Your task to perform on an android device: Open eBay Image 0: 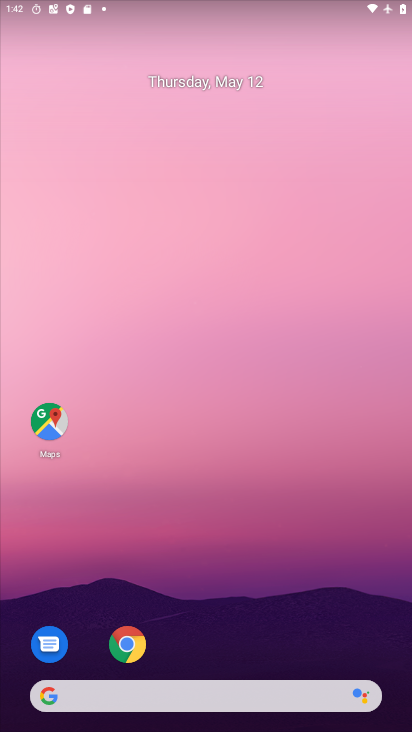
Step 0: click (134, 644)
Your task to perform on an android device: Open eBay Image 1: 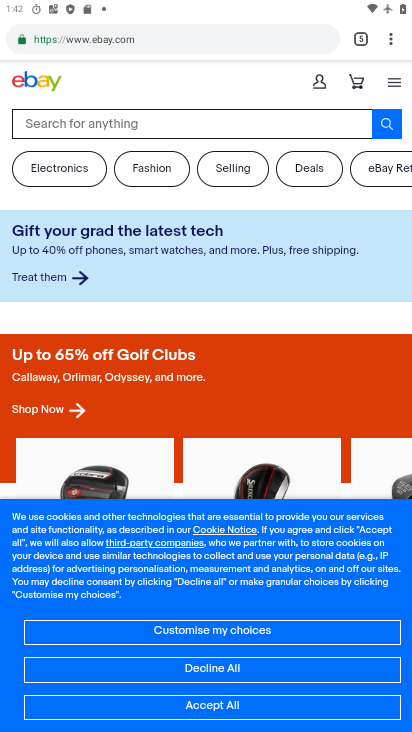
Step 1: task complete